Your task to perform on an android device: Open notification settings Image 0: 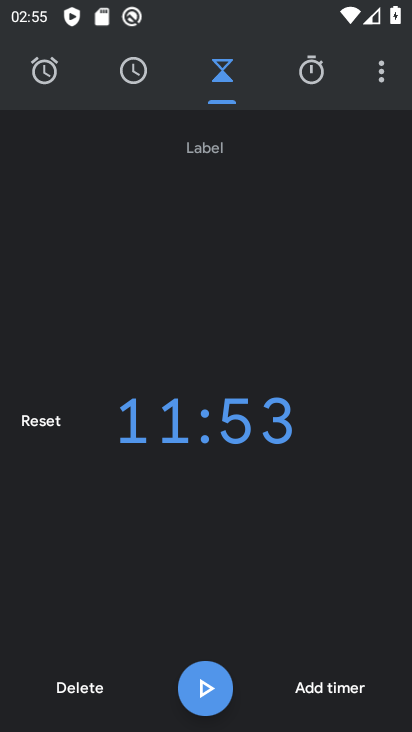
Step 0: press home button
Your task to perform on an android device: Open notification settings Image 1: 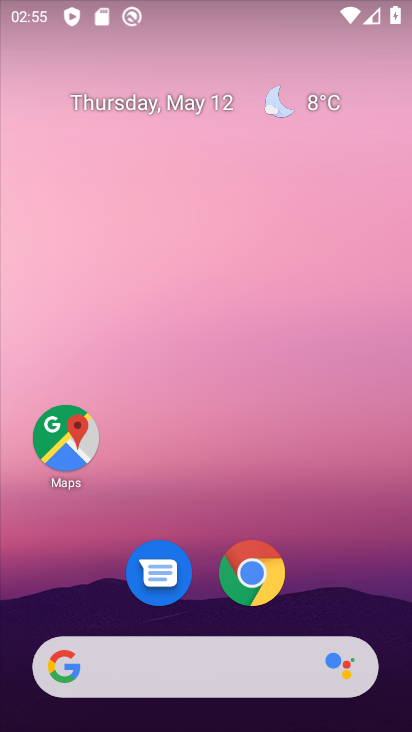
Step 1: drag from (309, 498) to (228, 21)
Your task to perform on an android device: Open notification settings Image 2: 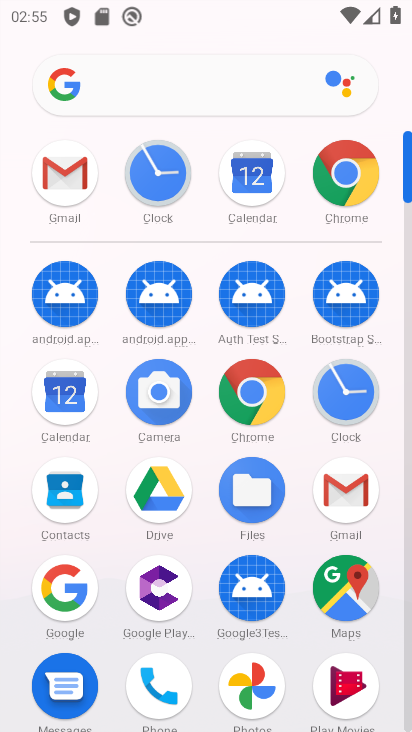
Step 2: click (409, 729)
Your task to perform on an android device: Open notification settings Image 3: 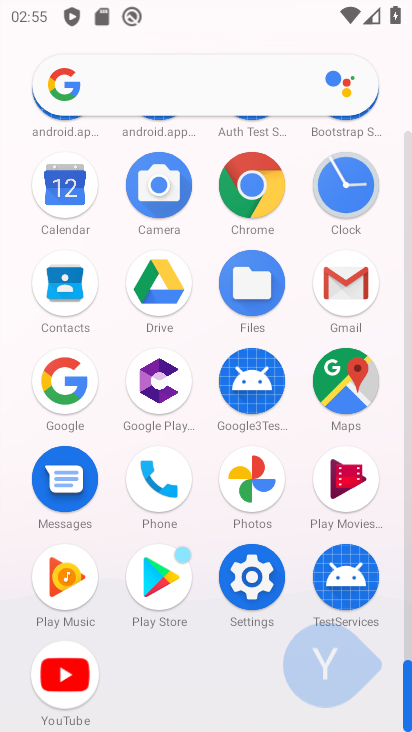
Step 3: click (409, 729)
Your task to perform on an android device: Open notification settings Image 4: 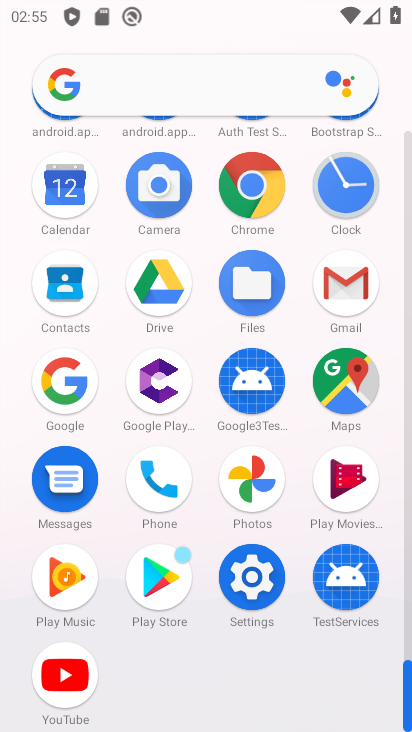
Step 4: click (409, 729)
Your task to perform on an android device: Open notification settings Image 5: 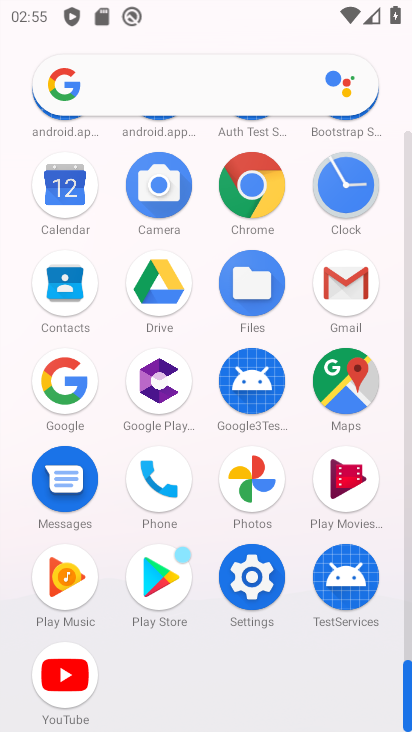
Step 5: click (269, 599)
Your task to perform on an android device: Open notification settings Image 6: 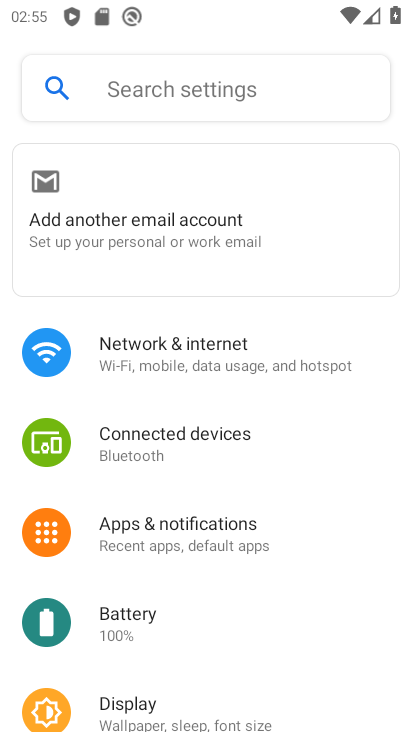
Step 6: click (285, 524)
Your task to perform on an android device: Open notification settings Image 7: 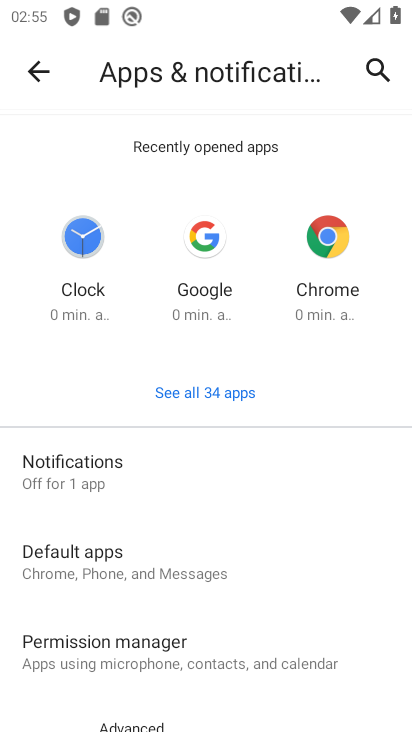
Step 7: click (87, 469)
Your task to perform on an android device: Open notification settings Image 8: 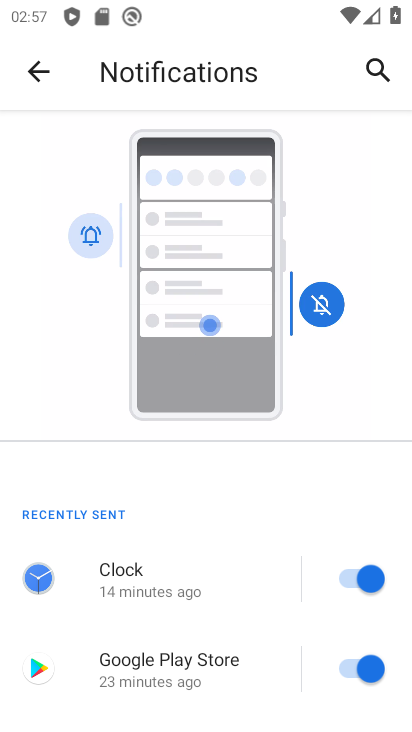
Step 8: task complete